Your task to perform on an android device: Open Wikipedia Image 0: 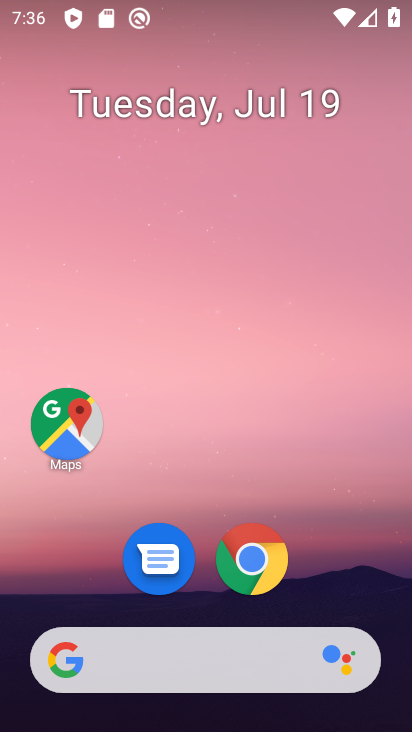
Step 0: click (254, 556)
Your task to perform on an android device: Open Wikipedia Image 1: 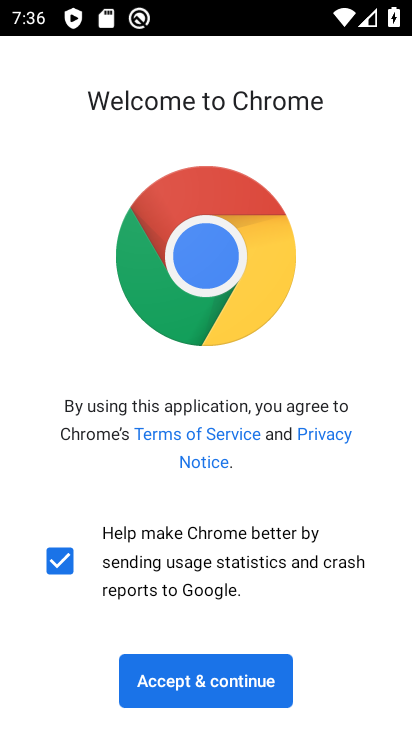
Step 1: click (230, 689)
Your task to perform on an android device: Open Wikipedia Image 2: 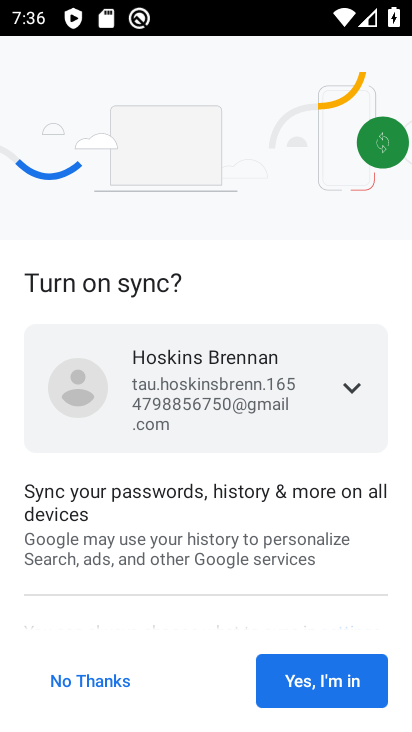
Step 2: click (289, 681)
Your task to perform on an android device: Open Wikipedia Image 3: 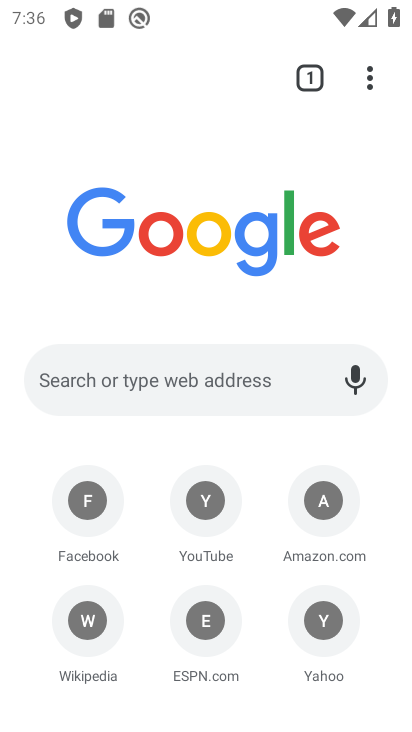
Step 3: click (82, 614)
Your task to perform on an android device: Open Wikipedia Image 4: 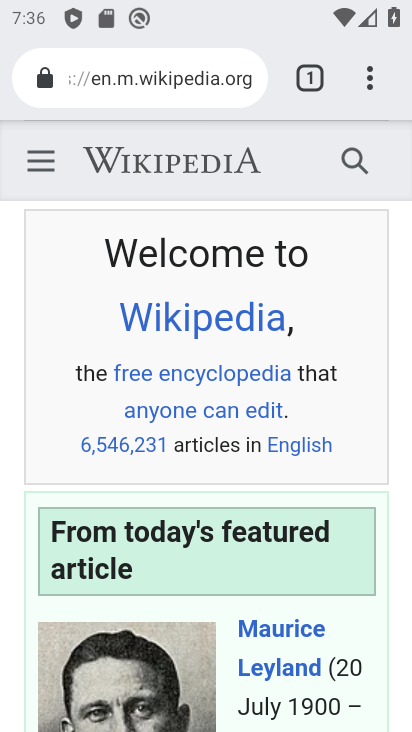
Step 4: task complete